Your task to perform on an android device: change the clock style Image 0: 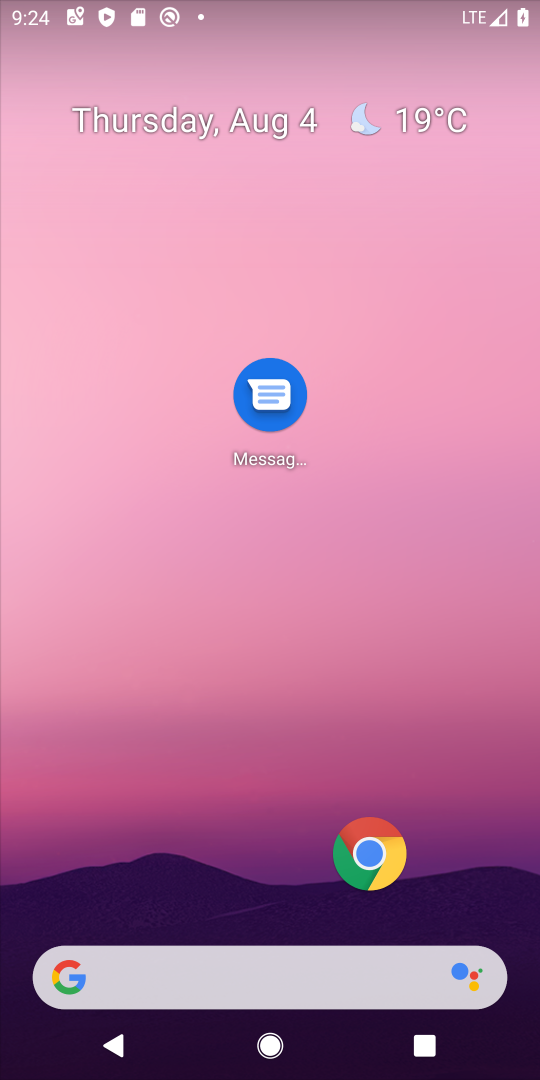
Step 0: drag from (353, 583) to (330, 385)
Your task to perform on an android device: change the clock style Image 1: 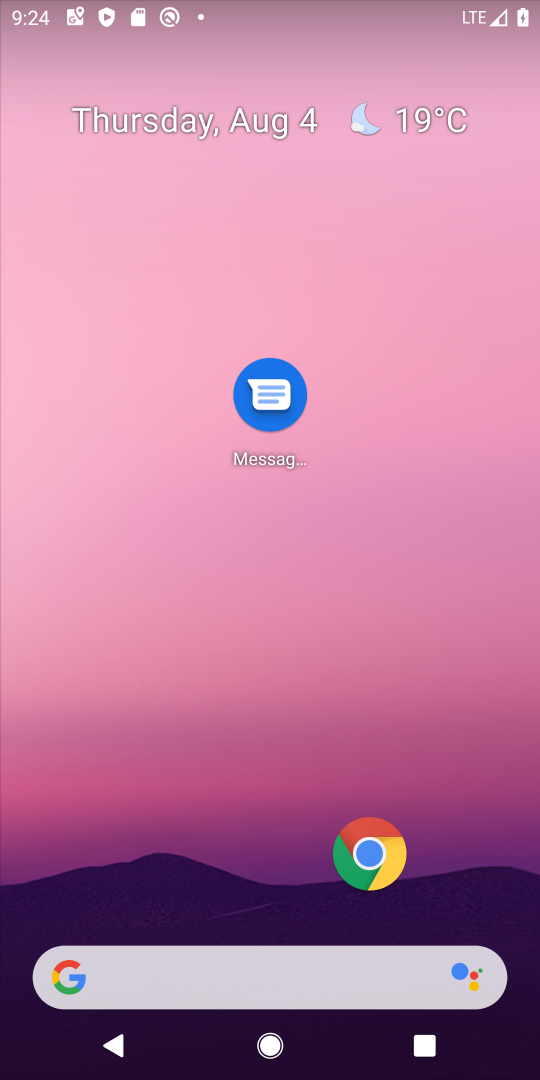
Step 1: drag from (215, 703) to (175, 385)
Your task to perform on an android device: change the clock style Image 2: 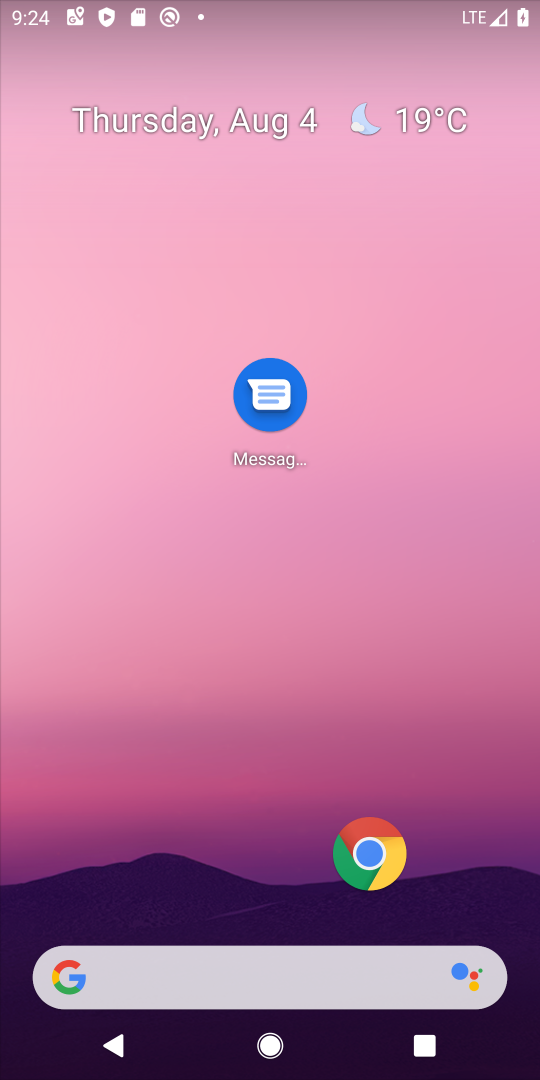
Step 2: drag from (257, 955) to (244, 165)
Your task to perform on an android device: change the clock style Image 3: 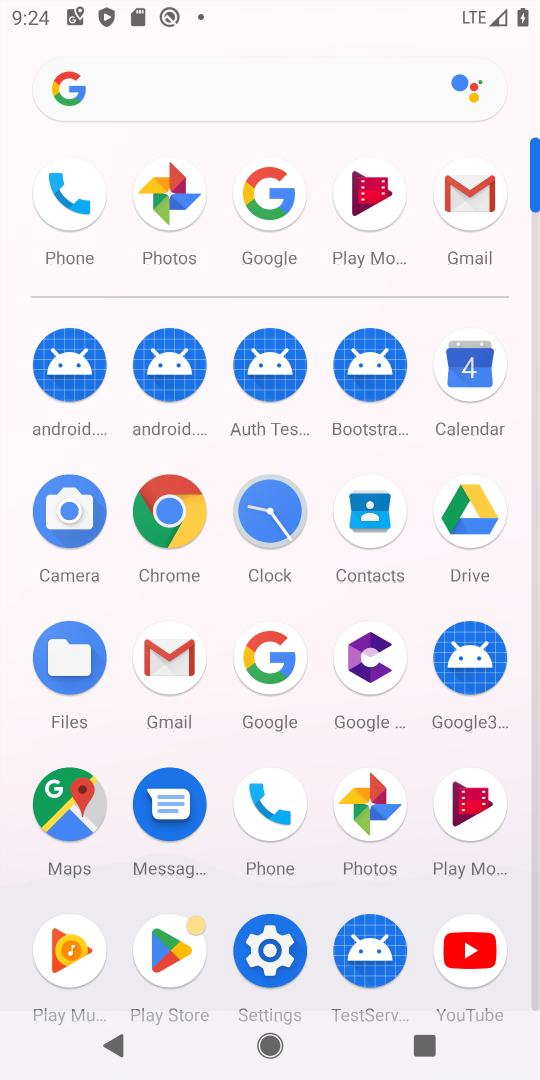
Step 3: click (286, 517)
Your task to perform on an android device: change the clock style Image 4: 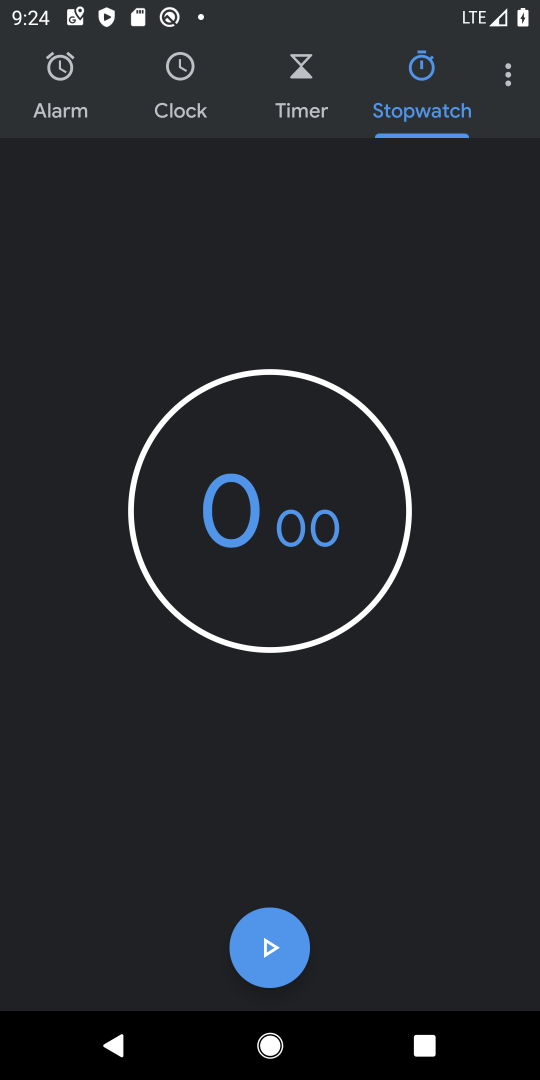
Step 4: click (506, 83)
Your task to perform on an android device: change the clock style Image 5: 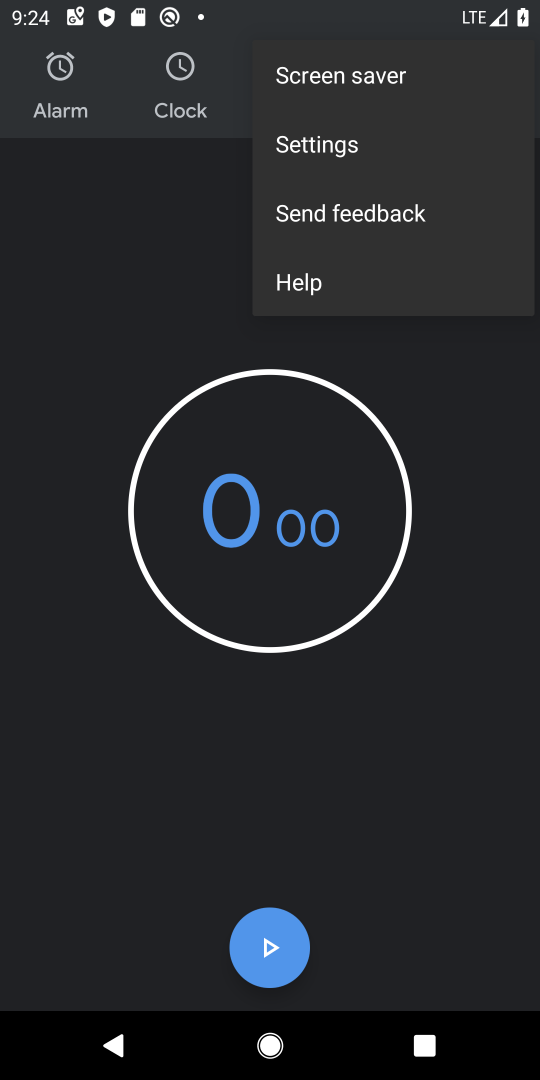
Step 5: click (300, 140)
Your task to perform on an android device: change the clock style Image 6: 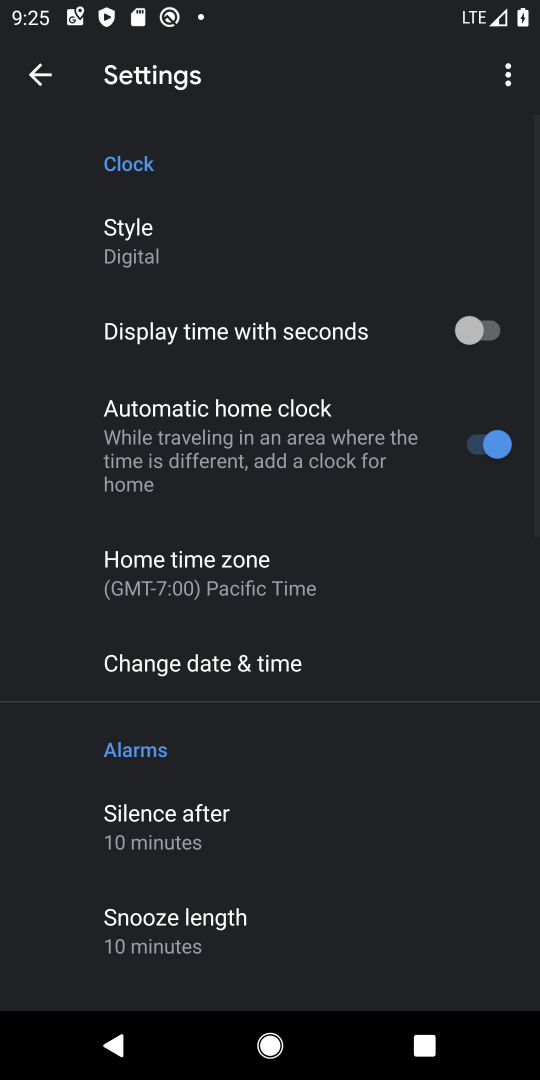
Step 6: click (173, 250)
Your task to perform on an android device: change the clock style Image 7: 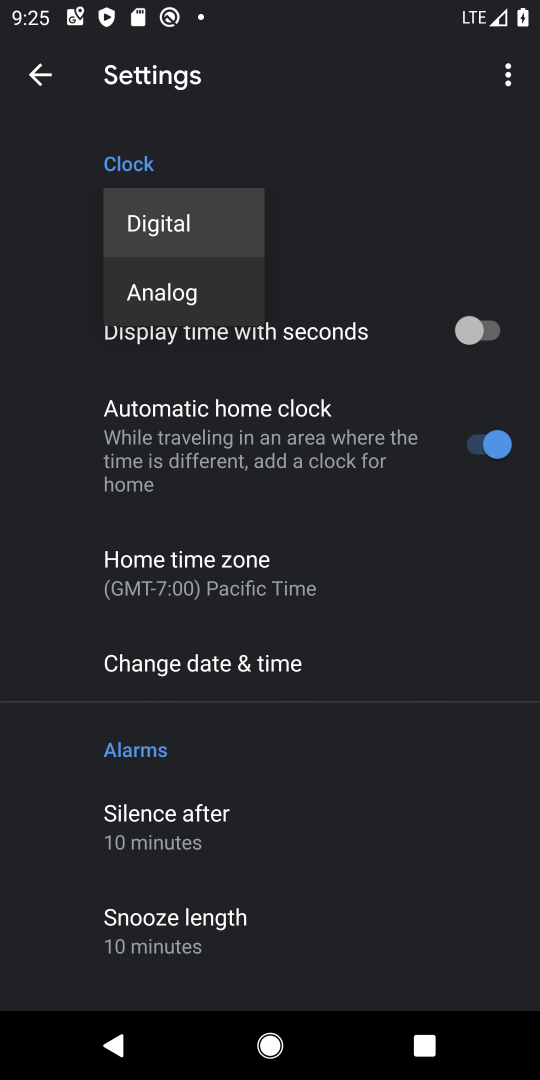
Step 7: click (177, 289)
Your task to perform on an android device: change the clock style Image 8: 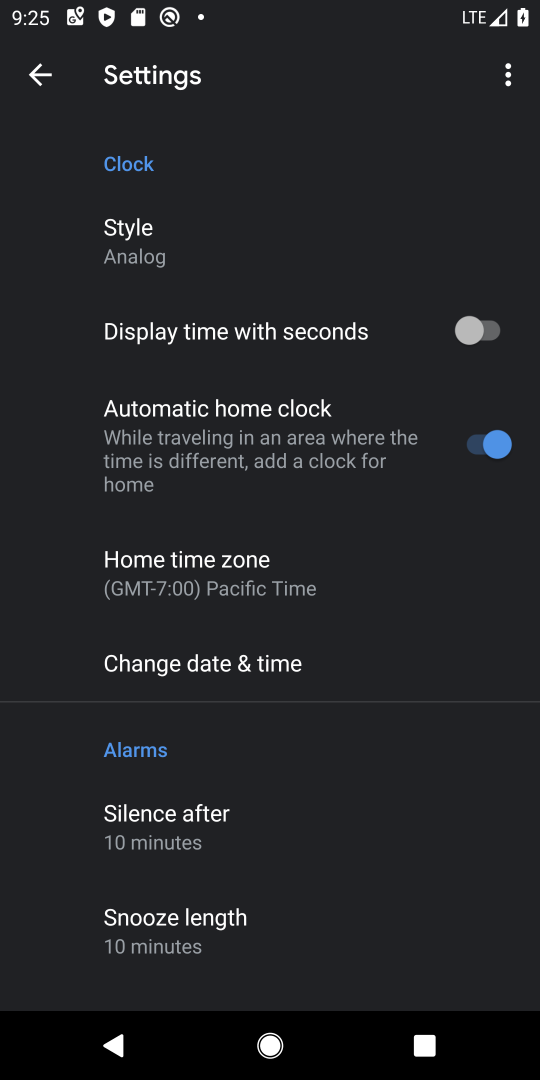
Step 8: task complete